Your task to perform on an android device: turn off notifications in google photos Image 0: 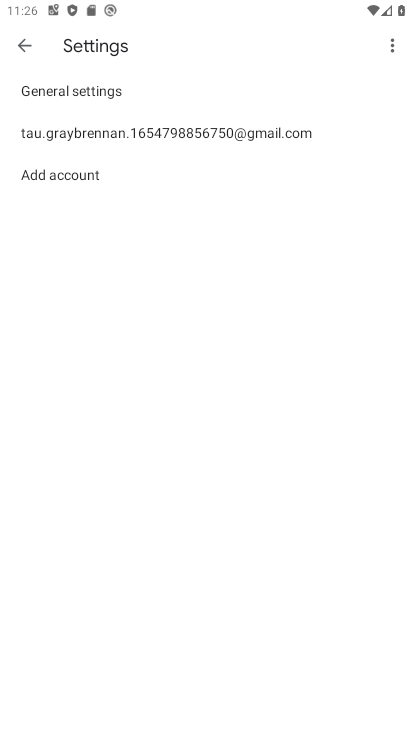
Step 0: press home button
Your task to perform on an android device: turn off notifications in google photos Image 1: 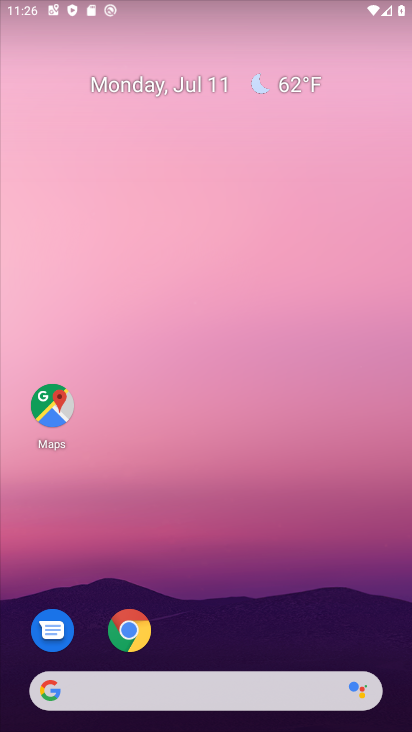
Step 1: drag from (219, 686) to (251, 18)
Your task to perform on an android device: turn off notifications in google photos Image 2: 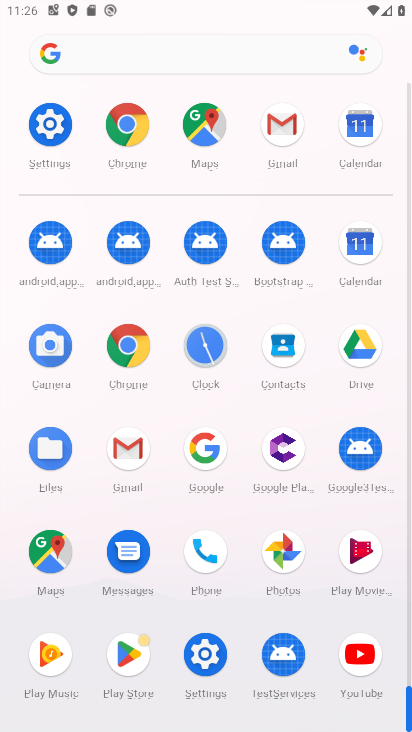
Step 2: click (276, 559)
Your task to perform on an android device: turn off notifications in google photos Image 3: 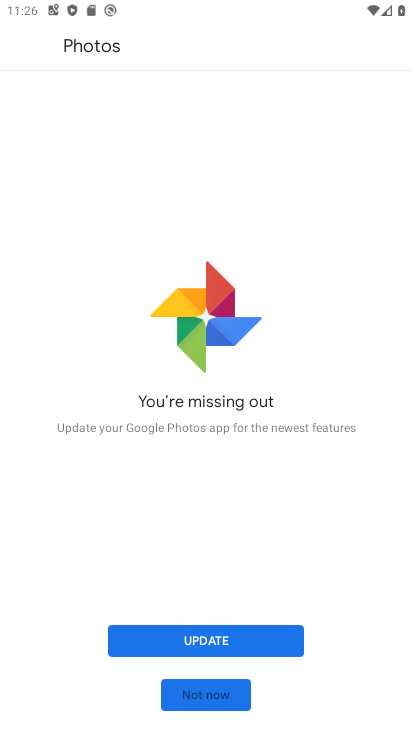
Step 3: click (250, 637)
Your task to perform on an android device: turn off notifications in google photos Image 4: 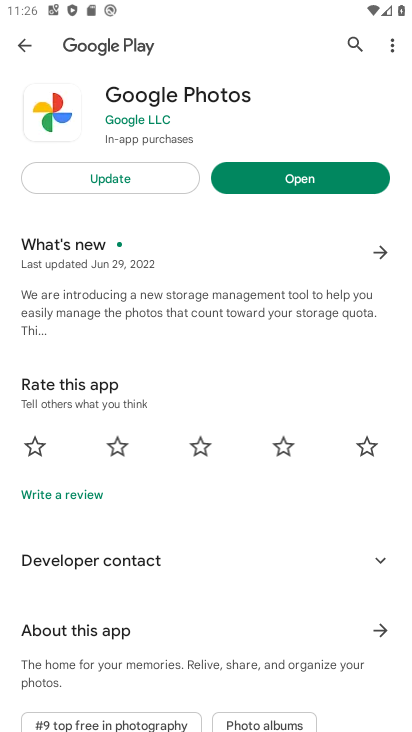
Step 4: click (151, 171)
Your task to perform on an android device: turn off notifications in google photos Image 5: 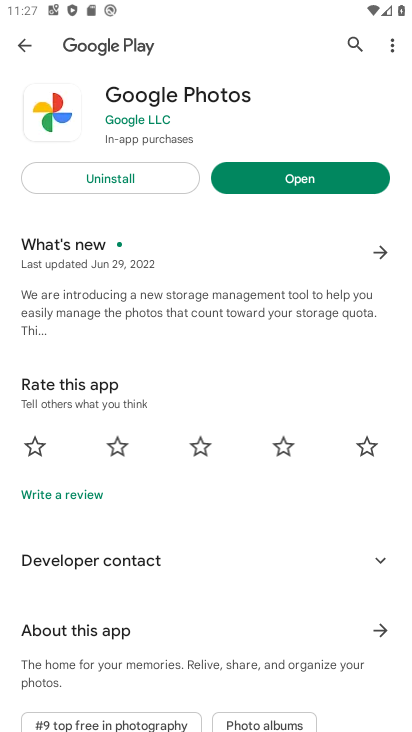
Step 5: click (300, 183)
Your task to perform on an android device: turn off notifications in google photos Image 6: 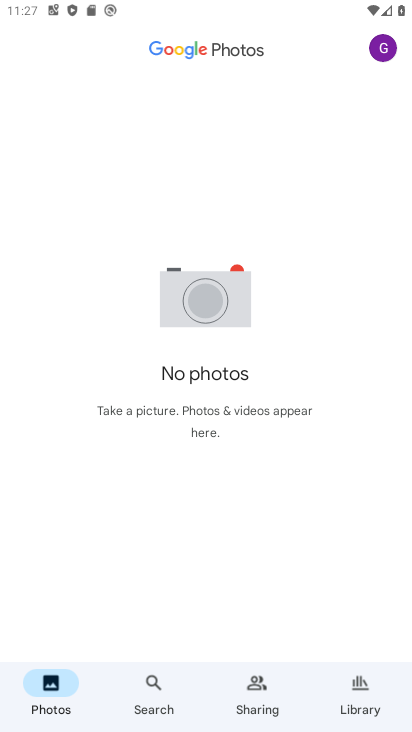
Step 6: click (381, 51)
Your task to perform on an android device: turn off notifications in google photos Image 7: 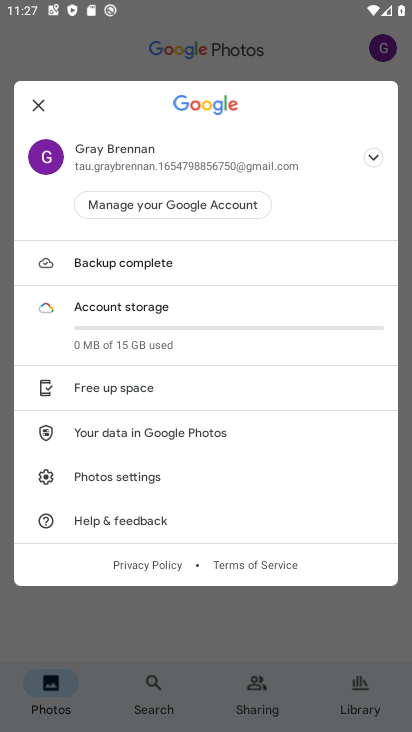
Step 7: click (117, 471)
Your task to perform on an android device: turn off notifications in google photos Image 8: 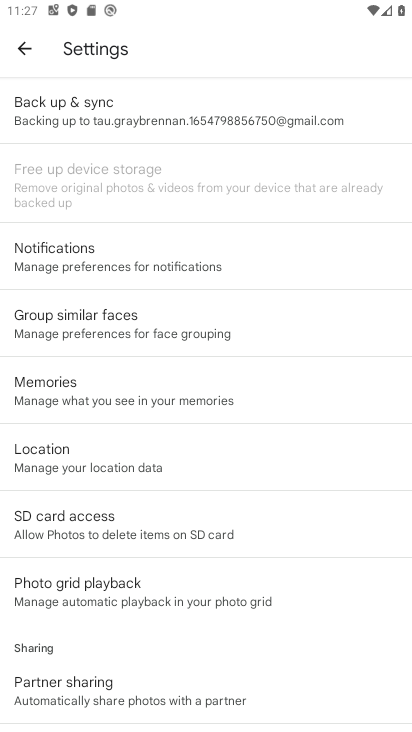
Step 8: click (79, 267)
Your task to perform on an android device: turn off notifications in google photos Image 9: 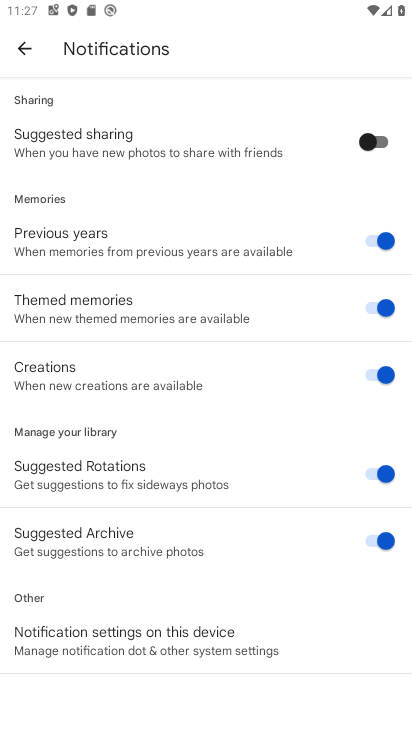
Step 9: click (178, 642)
Your task to perform on an android device: turn off notifications in google photos Image 10: 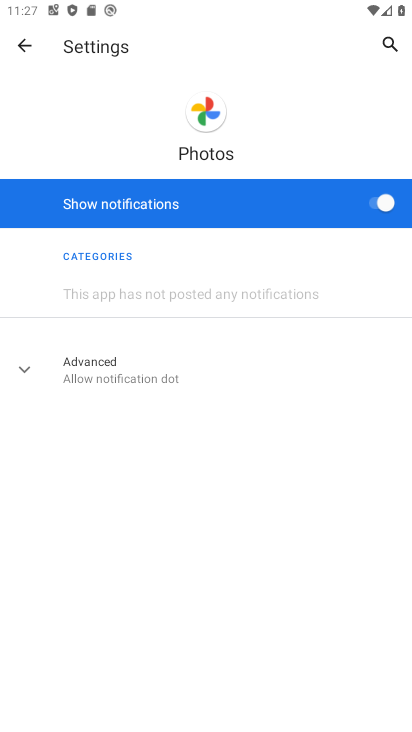
Step 10: click (373, 207)
Your task to perform on an android device: turn off notifications in google photos Image 11: 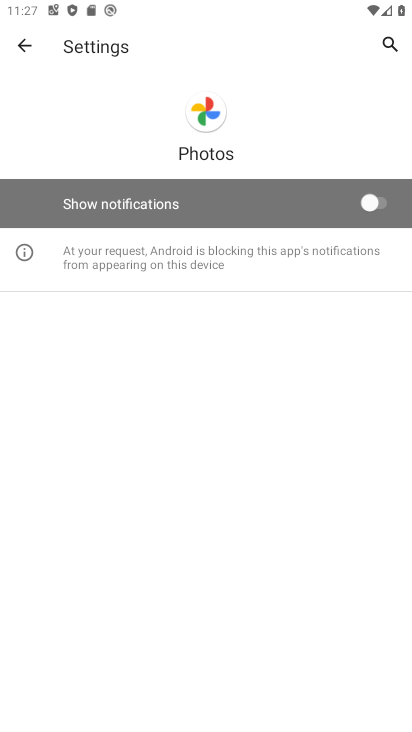
Step 11: task complete